Your task to perform on an android device: What's on my calendar today? Image 0: 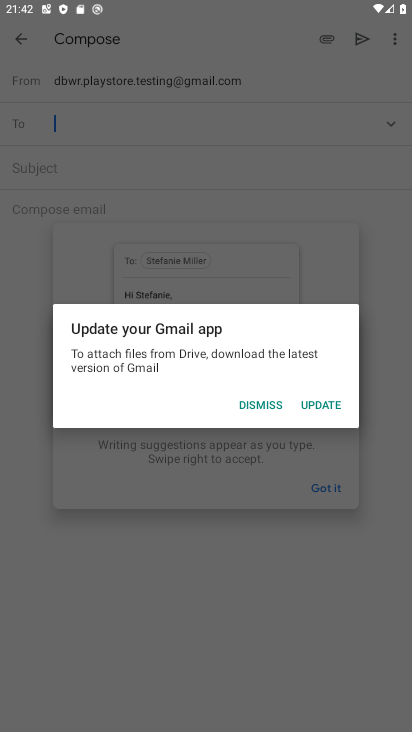
Step 0: press home button
Your task to perform on an android device: What's on my calendar today? Image 1: 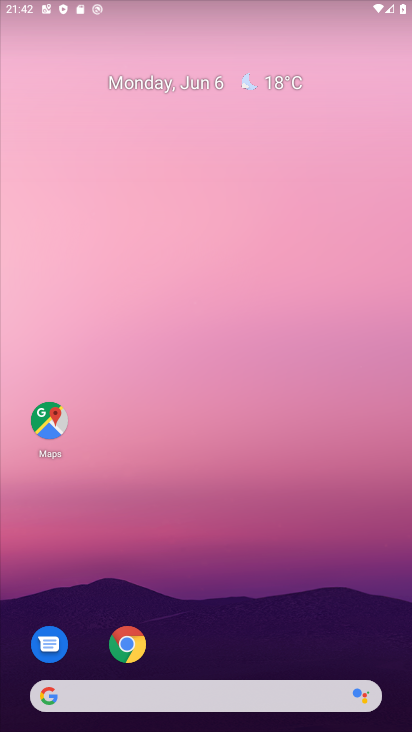
Step 1: drag from (363, 556) to (352, 189)
Your task to perform on an android device: What's on my calendar today? Image 2: 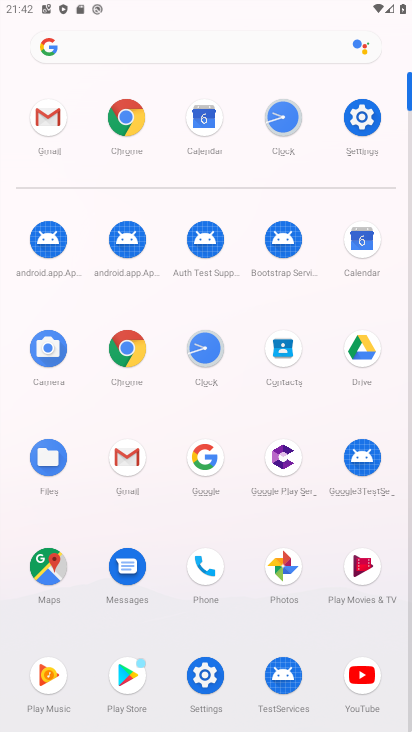
Step 2: click (370, 239)
Your task to perform on an android device: What's on my calendar today? Image 3: 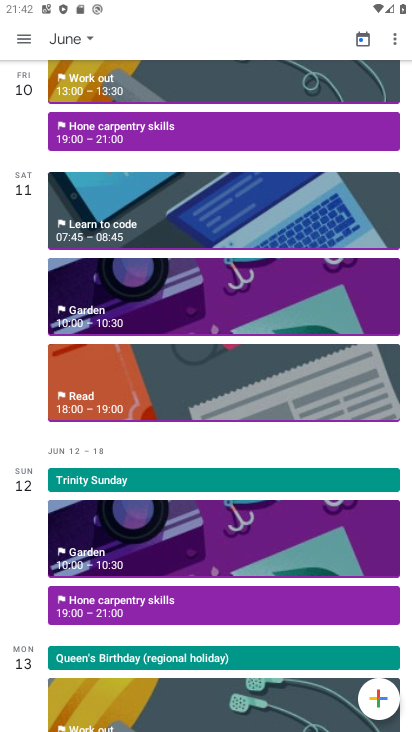
Step 3: task complete